Your task to perform on an android device: Open Android settings Image 0: 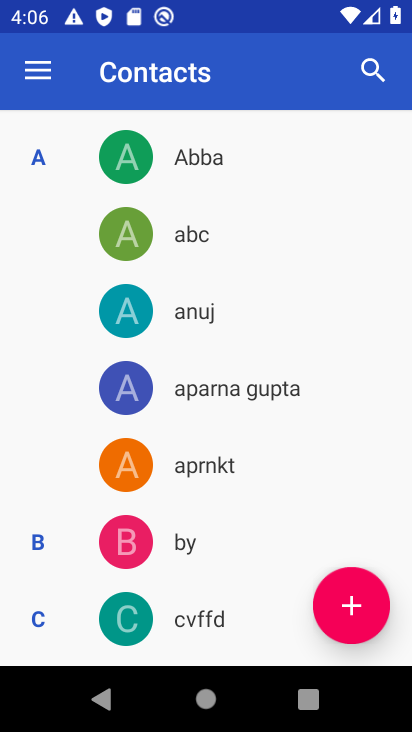
Step 0: press home button
Your task to perform on an android device: Open Android settings Image 1: 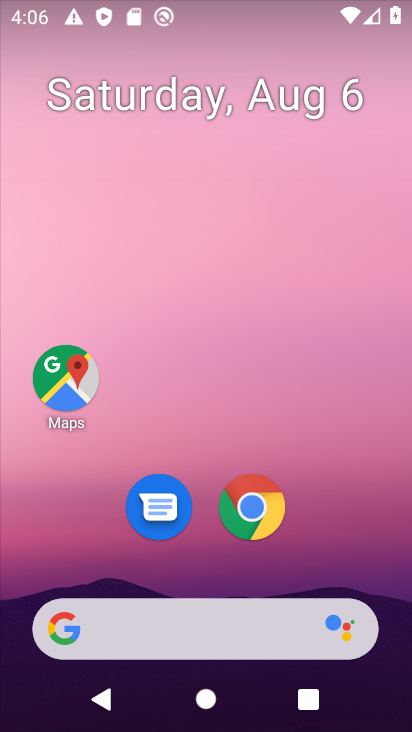
Step 1: drag from (212, 469) to (236, 16)
Your task to perform on an android device: Open Android settings Image 2: 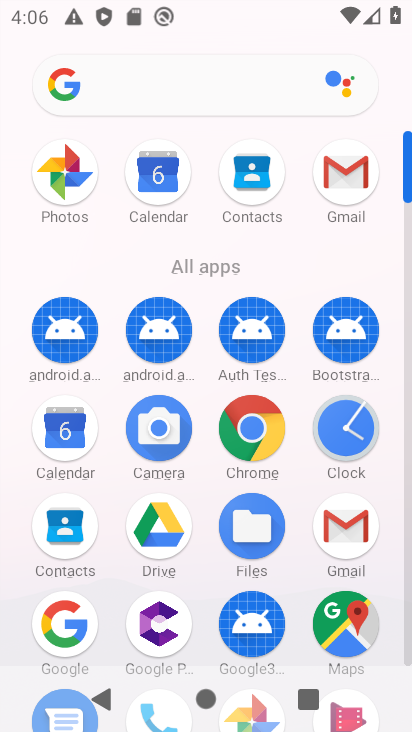
Step 2: drag from (173, 598) to (216, 214)
Your task to perform on an android device: Open Android settings Image 3: 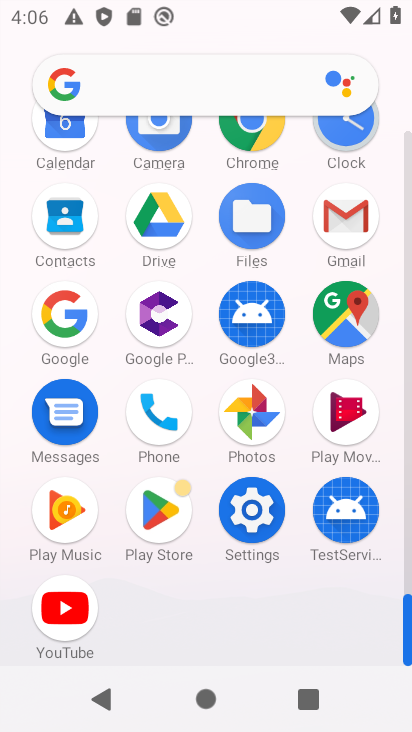
Step 3: click (244, 529)
Your task to perform on an android device: Open Android settings Image 4: 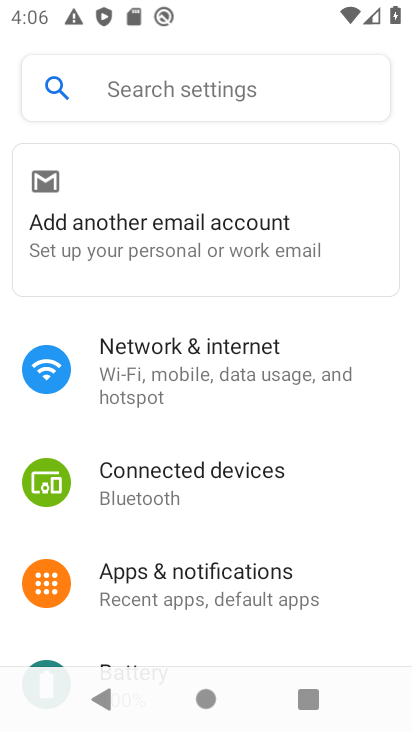
Step 4: task complete